Your task to perform on an android device: move a message to another label in the gmail app Image 0: 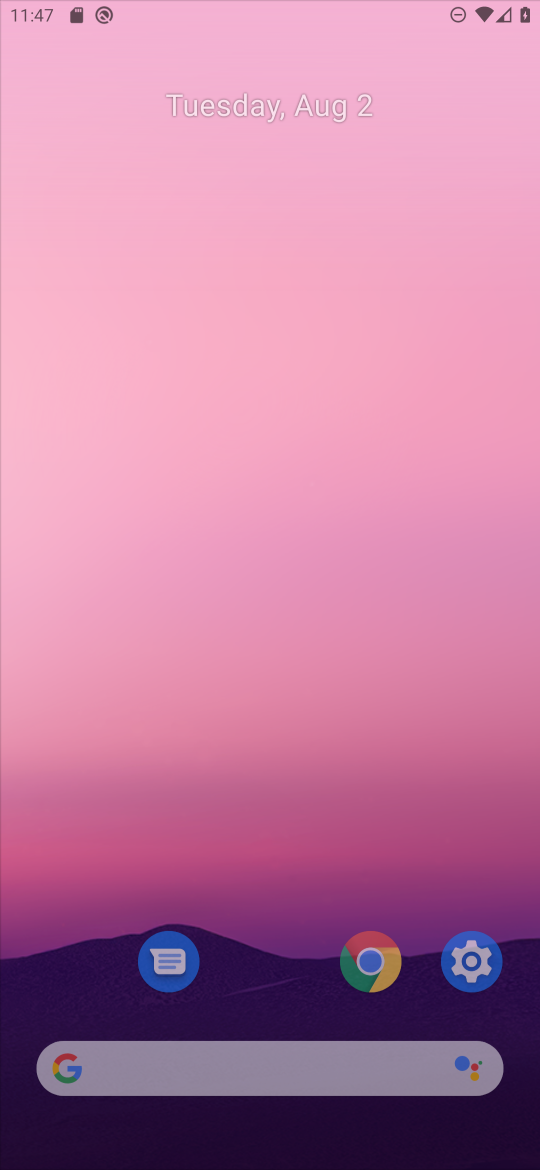
Step 0: press home button
Your task to perform on an android device: move a message to another label in the gmail app Image 1: 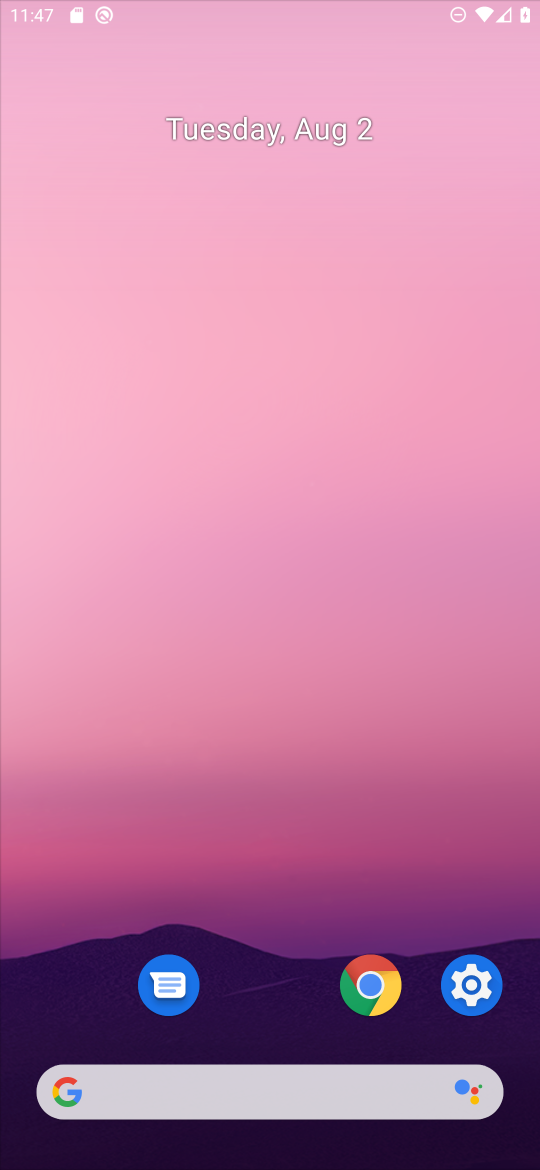
Step 1: click (379, 959)
Your task to perform on an android device: move a message to another label in the gmail app Image 2: 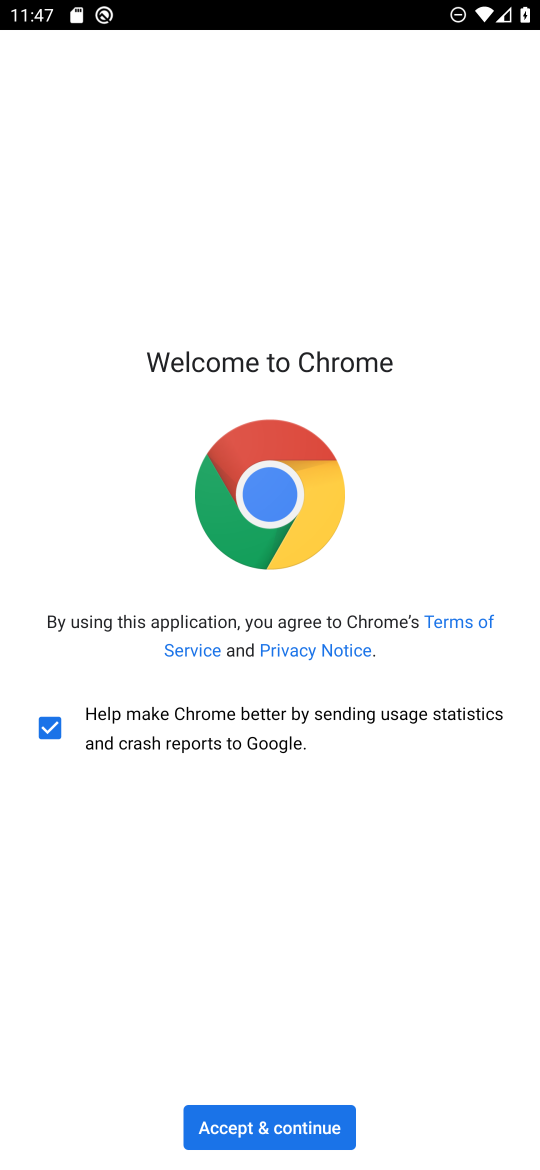
Step 2: click (222, 1133)
Your task to perform on an android device: move a message to another label in the gmail app Image 3: 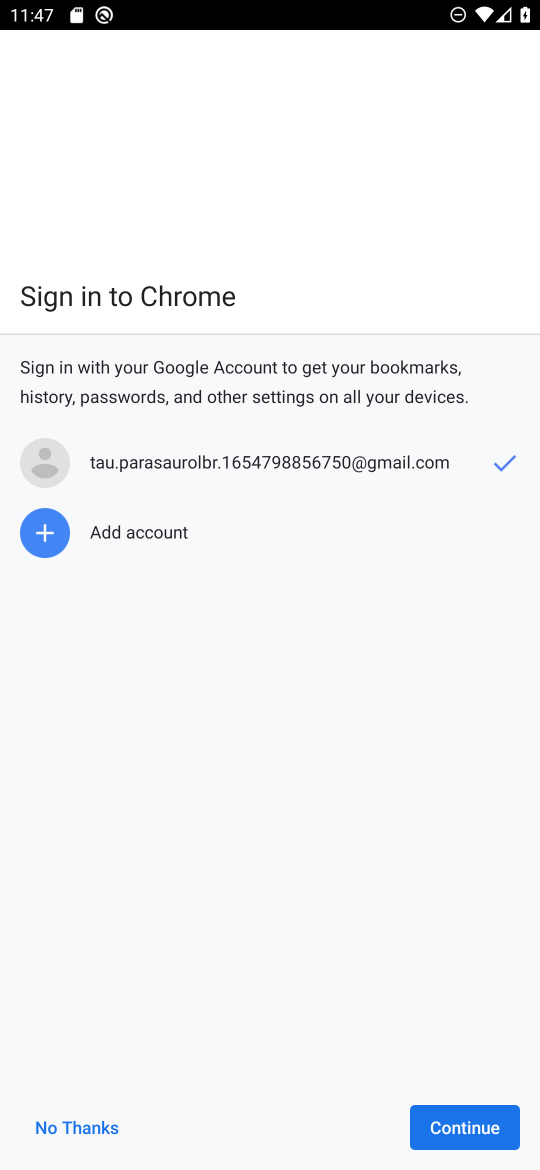
Step 3: press home button
Your task to perform on an android device: move a message to another label in the gmail app Image 4: 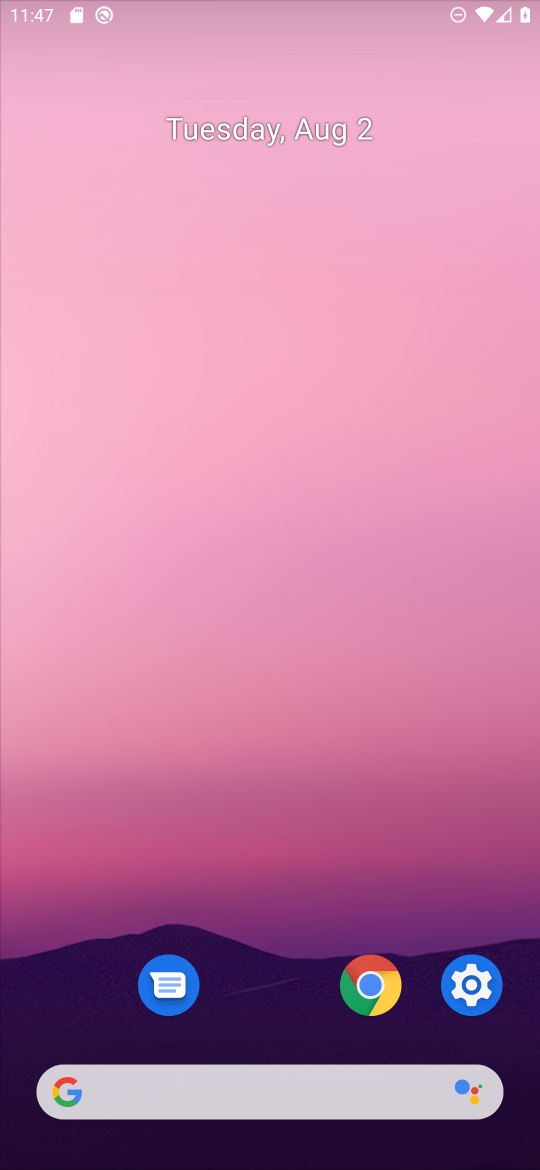
Step 4: drag from (346, 1131) to (429, 272)
Your task to perform on an android device: move a message to another label in the gmail app Image 5: 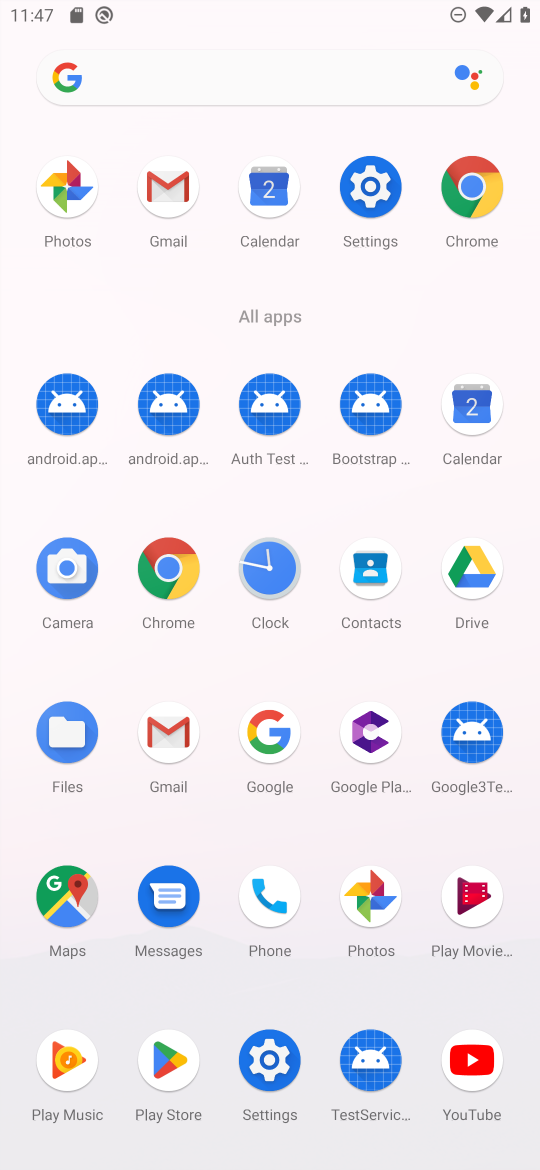
Step 5: drag from (181, 723) to (539, 1001)
Your task to perform on an android device: move a message to another label in the gmail app Image 6: 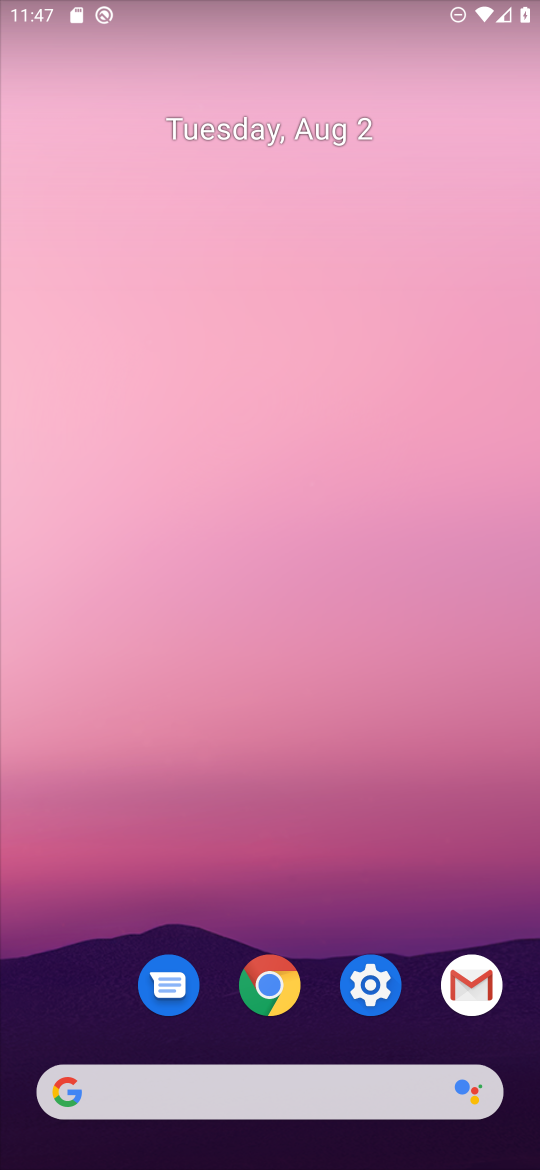
Step 6: click (473, 994)
Your task to perform on an android device: move a message to another label in the gmail app Image 7: 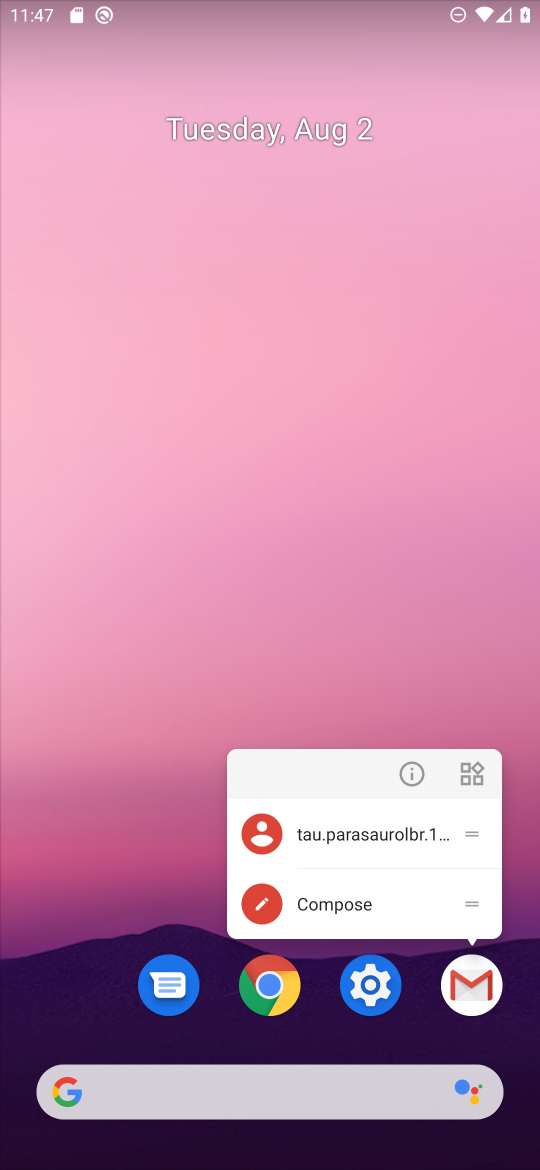
Step 7: click (466, 1013)
Your task to perform on an android device: move a message to another label in the gmail app Image 8: 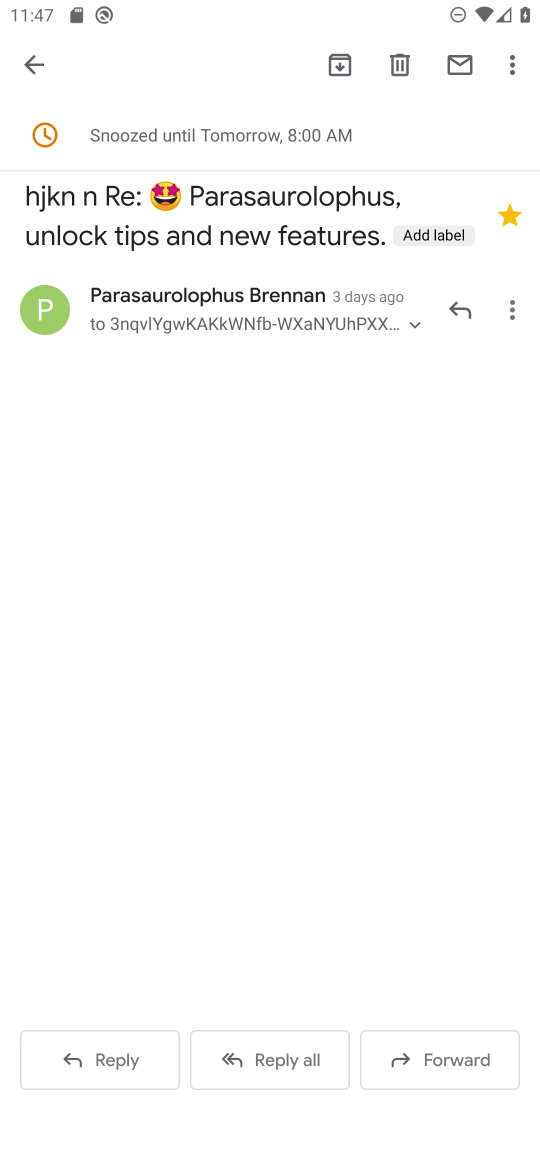
Step 8: click (39, 61)
Your task to perform on an android device: move a message to another label in the gmail app Image 9: 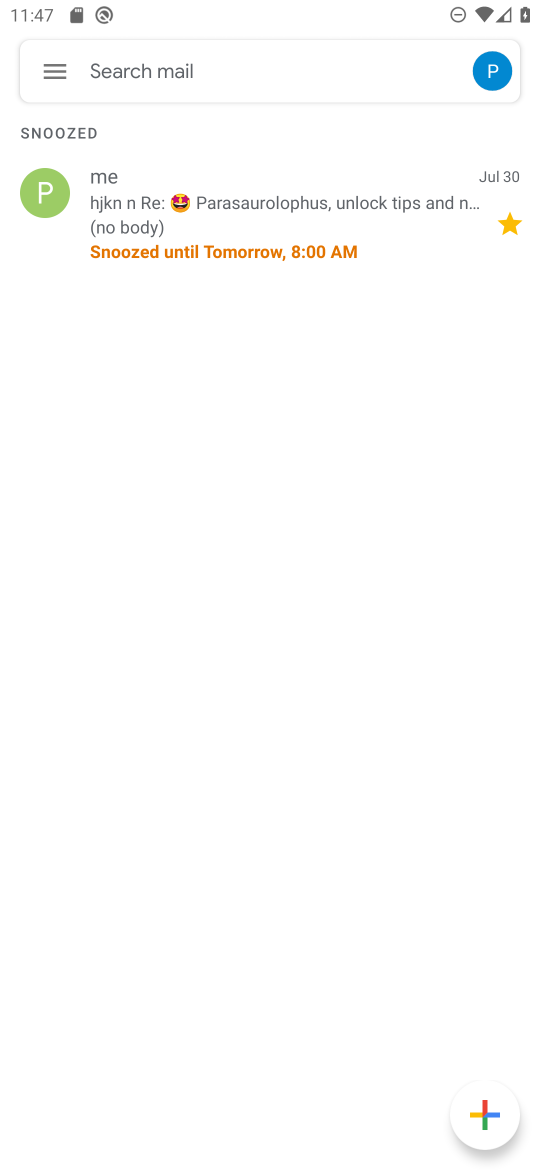
Step 9: click (194, 225)
Your task to perform on an android device: move a message to another label in the gmail app Image 10: 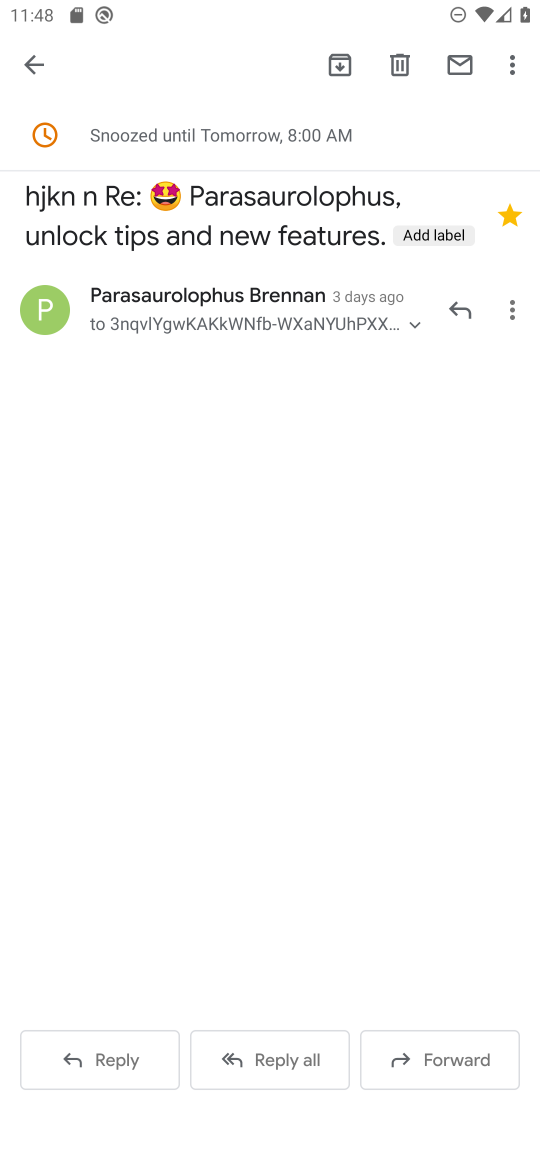
Step 10: click (512, 81)
Your task to perform on an android device: move a message to another label in the gmail app Image 11: 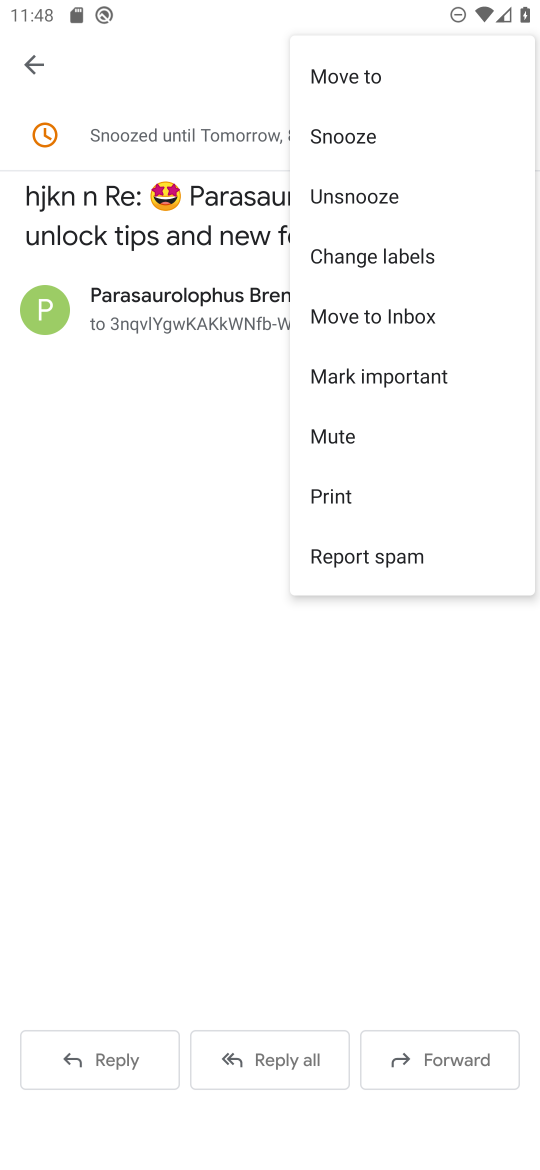
Step 11: click (387, 261)
Your task to perform on an android device: move a message to another label in the gmail app Image 12: 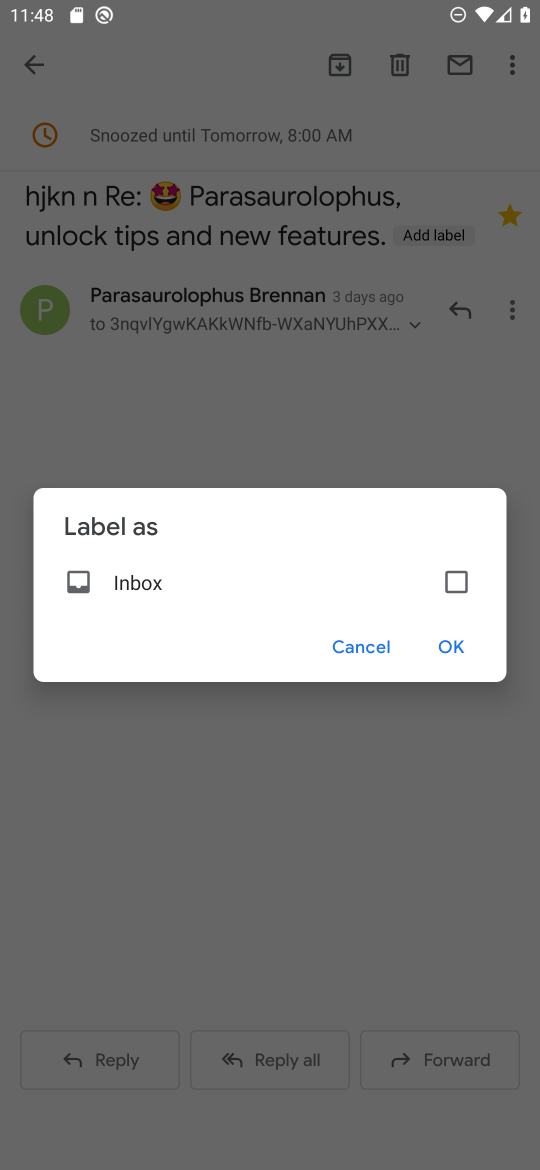
Step 12: click (458, 570)
Your task to perform on an android device: move a message to another label in the gmail app Image 13: 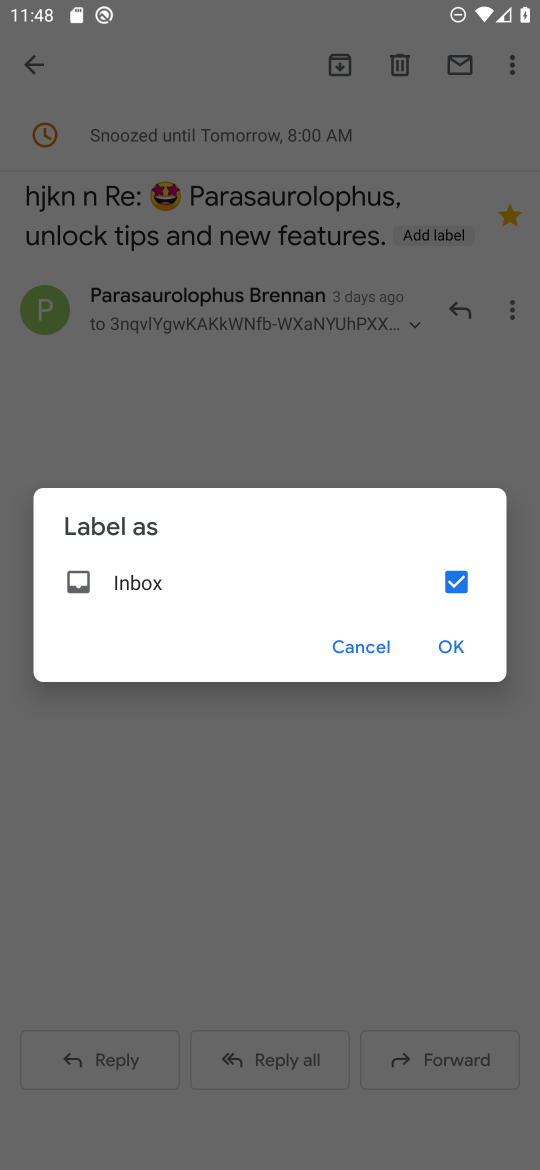
Step 13: click (454, 648)
Your task to perform on an android device: move a message to another label in the gmail app Image 14: 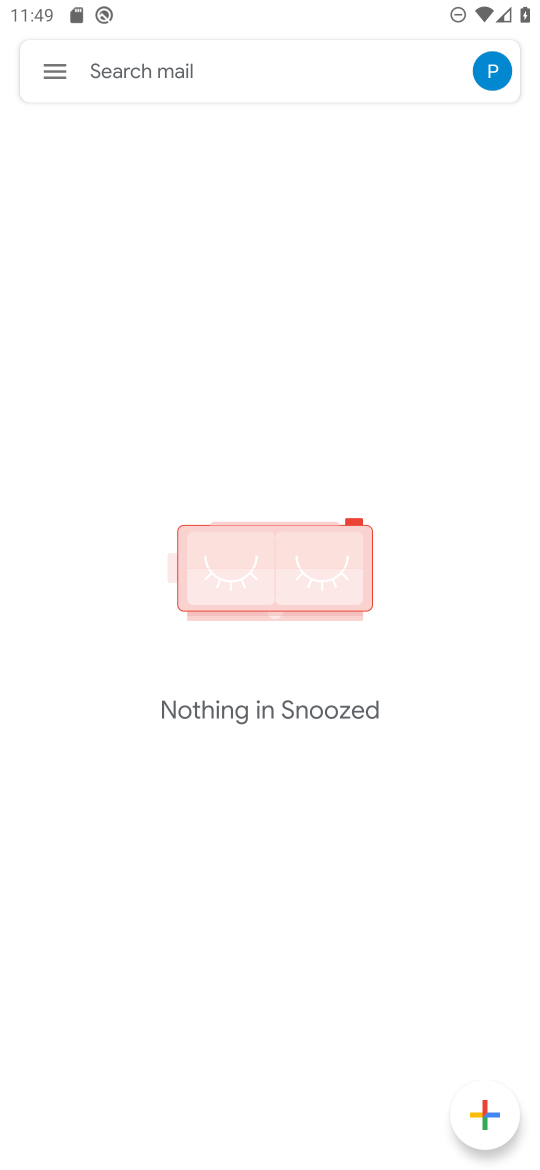
Step 14: task complete